Your task to perform on an android device: Do I have any events this weekend? Image 0: 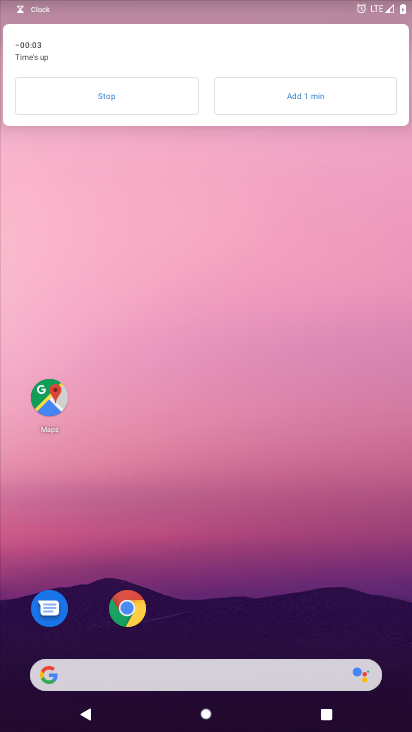
Step 0: drag from (214, 646) to (204, 310)
Your task to perform on an android device: Do I have any events this weekend? Image 1: 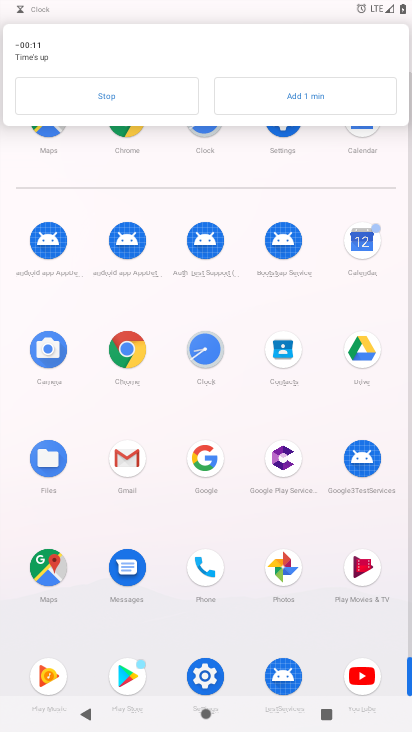
Step 1: click (366, 243)
Your task to perform on an android device: Do I have any events this weekend? Image 2: 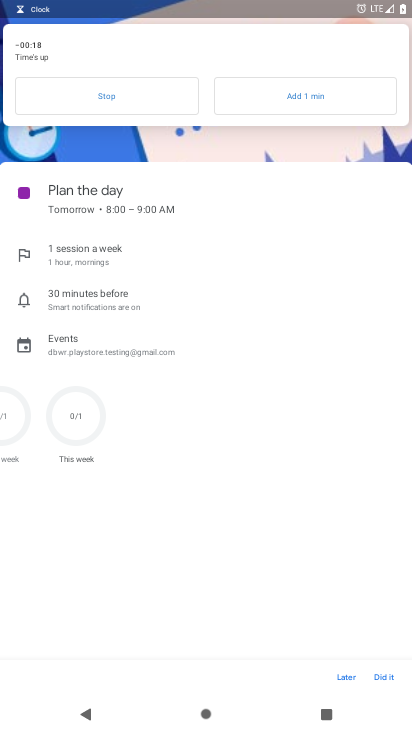
Step 2: click (135, 94)
Your task to perform on an android device: Do I have any events this weekend? Image 3: 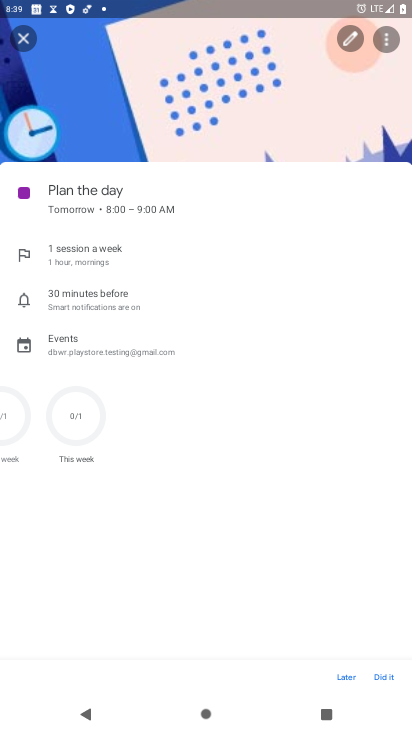
Step 3: click (17, 39)
Your task to perform on an android device: Do I have any events this weekend? Image 4: 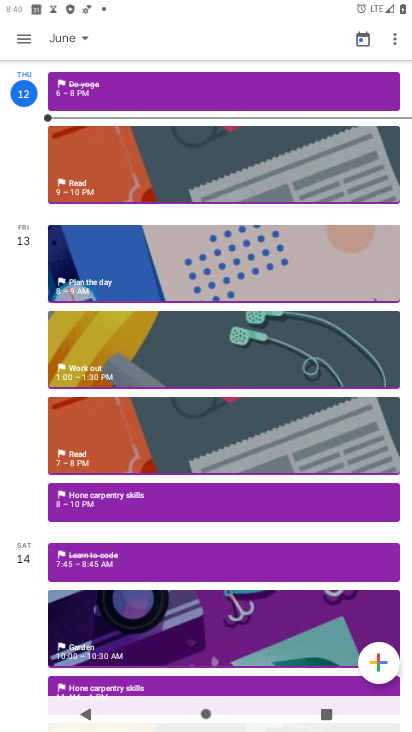
Step 4: click (99, 557)
Your task to perform on an android device: Do I have any events this weekend? Image 5: 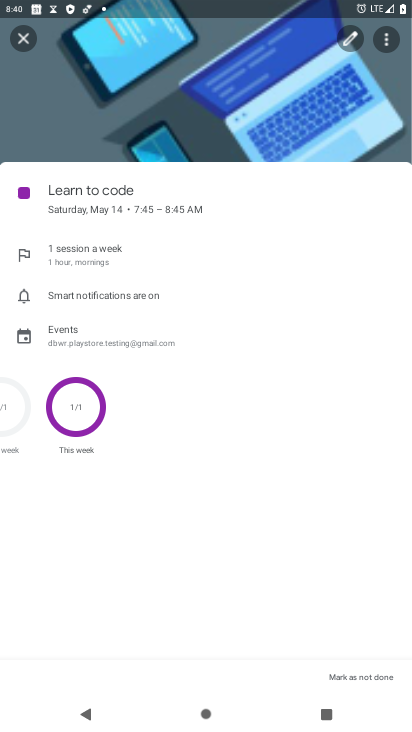
Step 5: task complete